Your task to perform on an android device: move a message to another label in the gmail app Image 0: 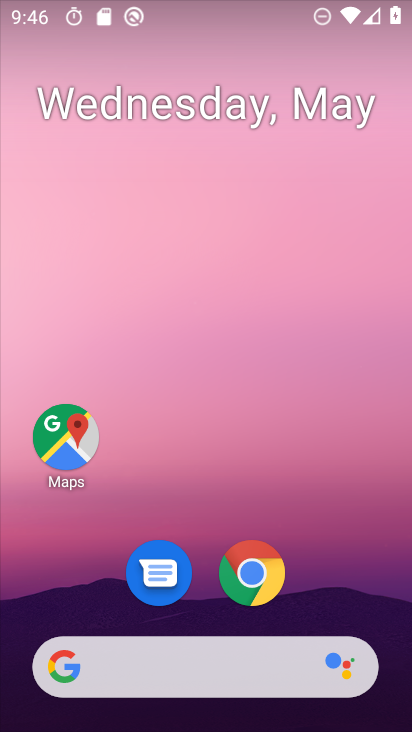
Step 0: drag from (394, 697) to (319, 183)
Your task to perform on an android device: move a message to another label in the gmail app Image 1: 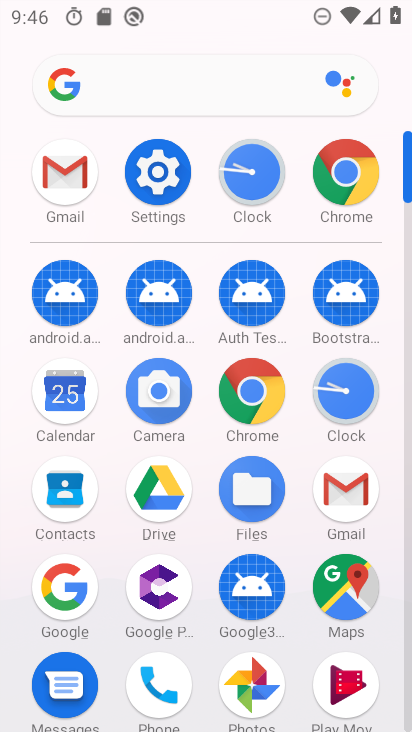
Step 1: click (334, 496)
Your task to perform on an android device: move a message to another label in the gmail app Image 2: 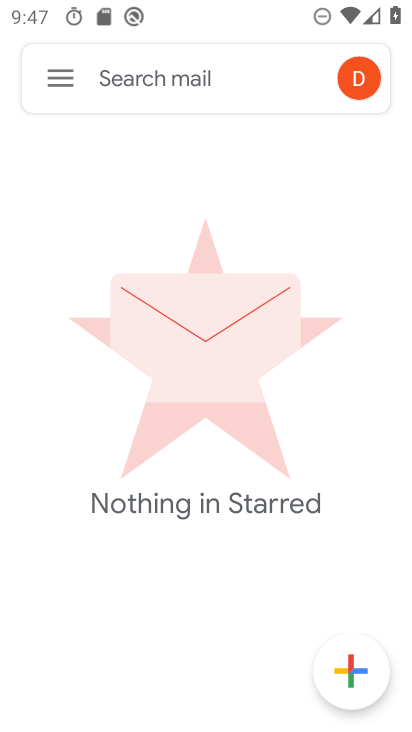
Step 2: click (61, 81)
Your task to perform on an android device: move a message to another label in the gmail app Image 3: 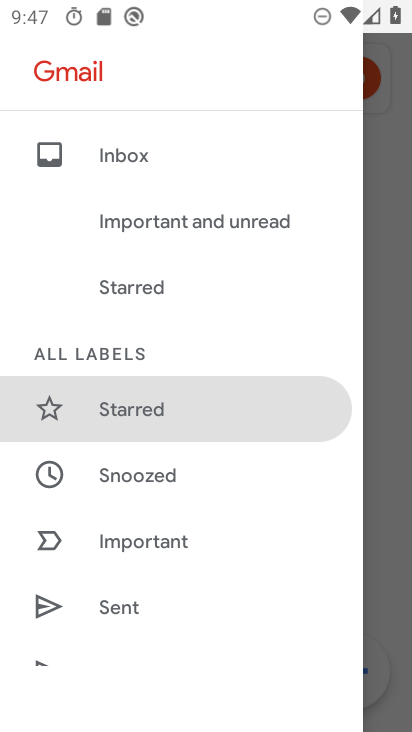
Step 3: click (127, 159)
Your task to perform on an android device: move a message to another label in the gmail app Image 4: 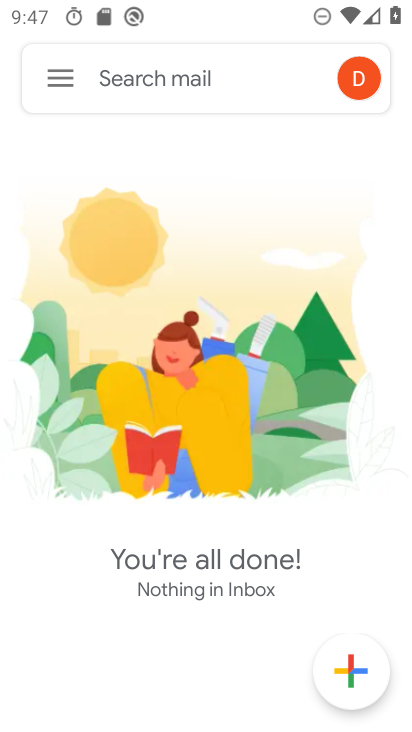
Step 4: task complete